Your task to perform on an android device: Open calendar and show me the first week of next month Image 0: 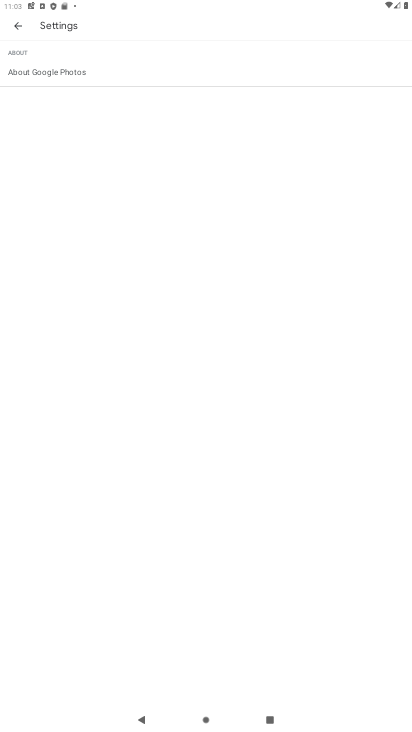
Step 0: press home button
Your task to perform on an android device: Open calendar and show me the first week of next month Image 1: 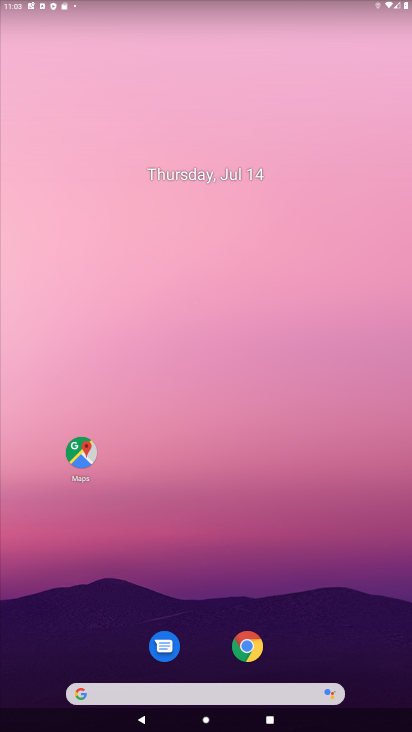
Step 1: drag from (202, 638) to (242, 86)
Your task to perform on an android device: Open calendar and show me the first week of next month Image 2: 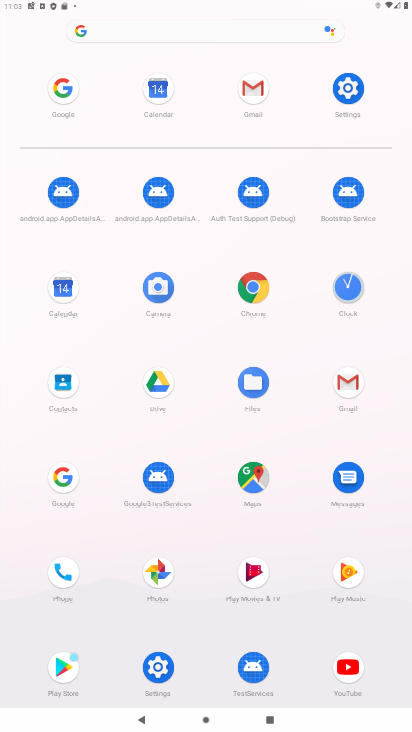
Step 2: click (39, 300)
Your task to perform on an android device: Open calendar and show me the first week of next month Image 3: 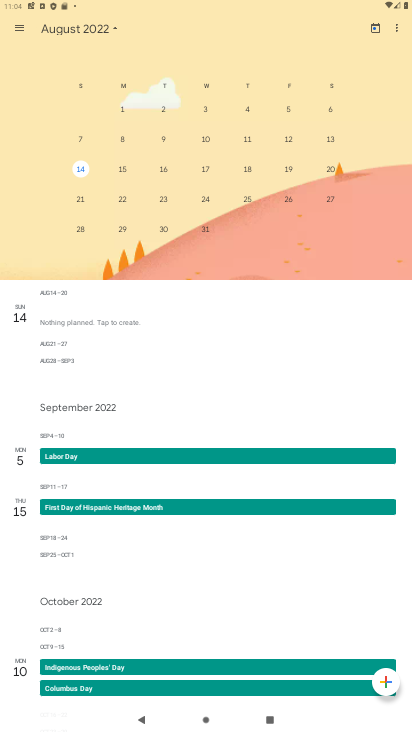
Step 3: task complete